Your task to perform on an android device: Go to Wikipedia Image 0: 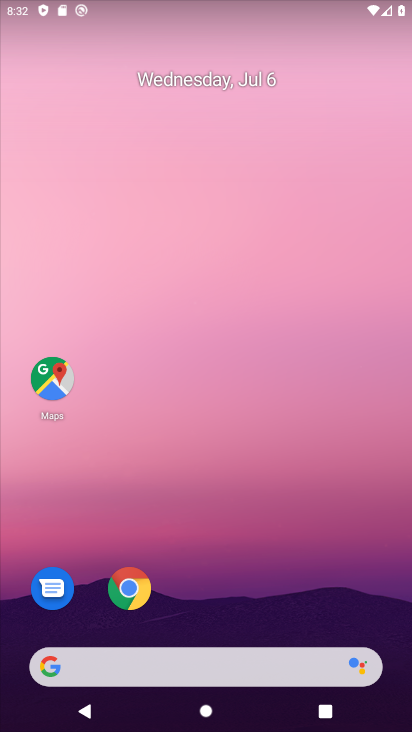
Step 0: drag from (195, 627) to (287, 89)
Your task to perform on an android device: Go to Wikipedia Image 1: 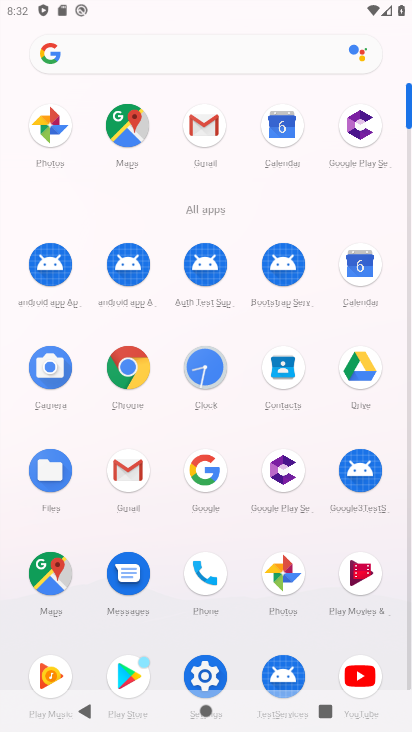
Step 1: click (128, 365)
Your task to perform on an android device: Go to Wikipedia Image 2: 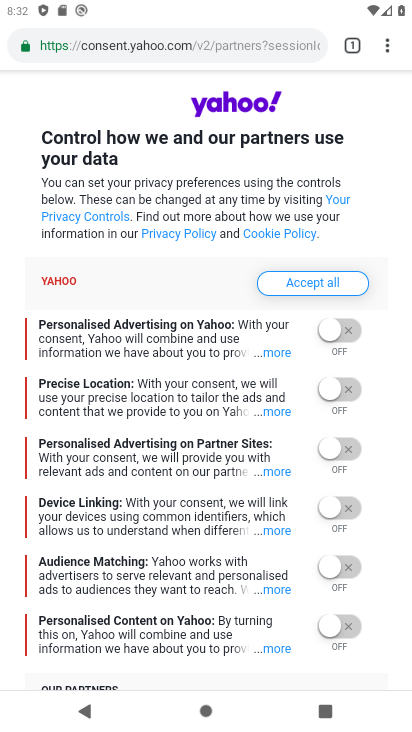
Step 2: press back button
Your task to perform on an android device: Go to Wikipedia Image 3: 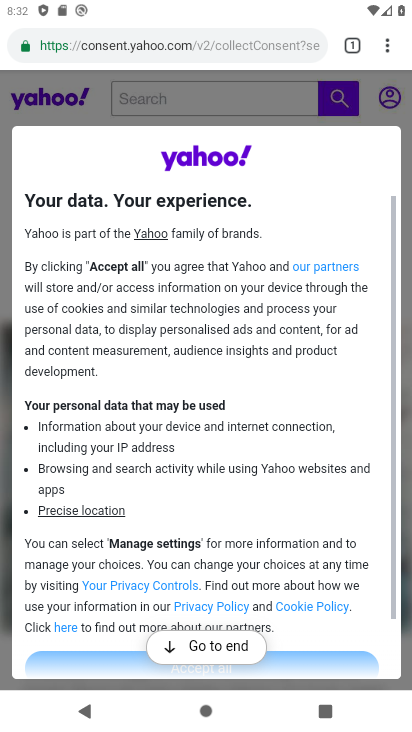
Step 3: drag from (229, 579) to (247, 294)
Your task to perform on an android device: Go to Wikipedia Image 4: 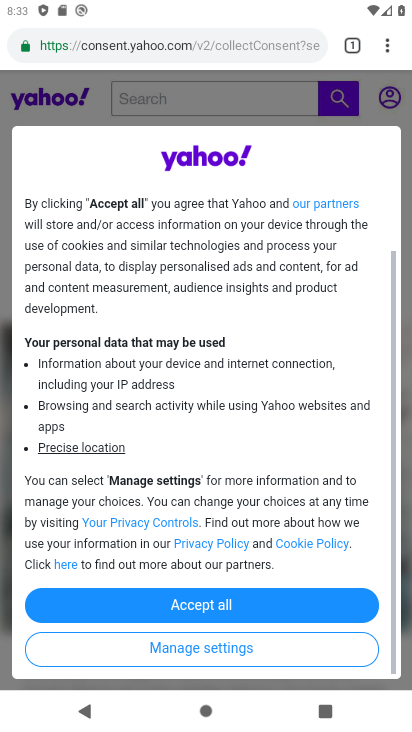
Step 4: click (356, 40)
Your task to perform on an android device: Go to Wikipedia Image 5: 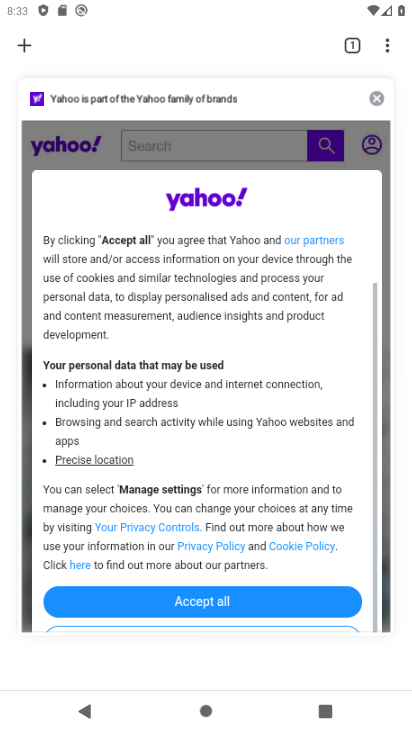
Step 5: click (20, 44)
Your task to perform on an android device: Go to Wikipedia Image 6: 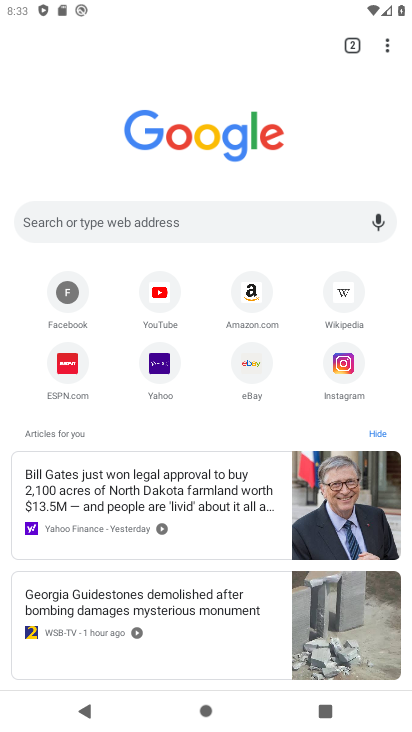
Step 6: click (335, 287)
Your task to perform on an android device: Go to Wikipedia Image 7: 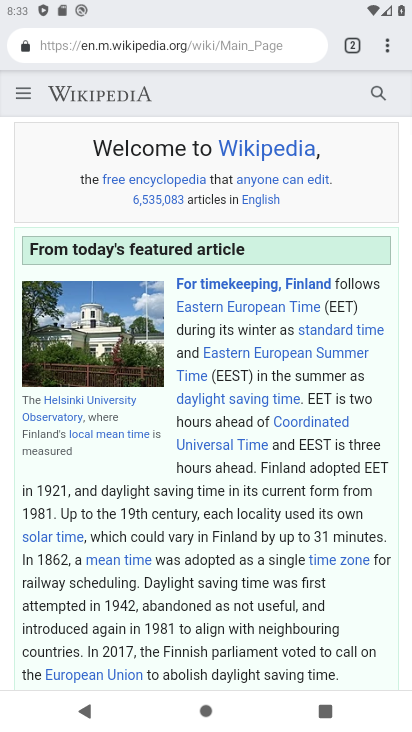
Step 7: task complete